Your task to perform on an android device: uninstall "Adobe Acrobat Reader: Edit PDF" Image 0: 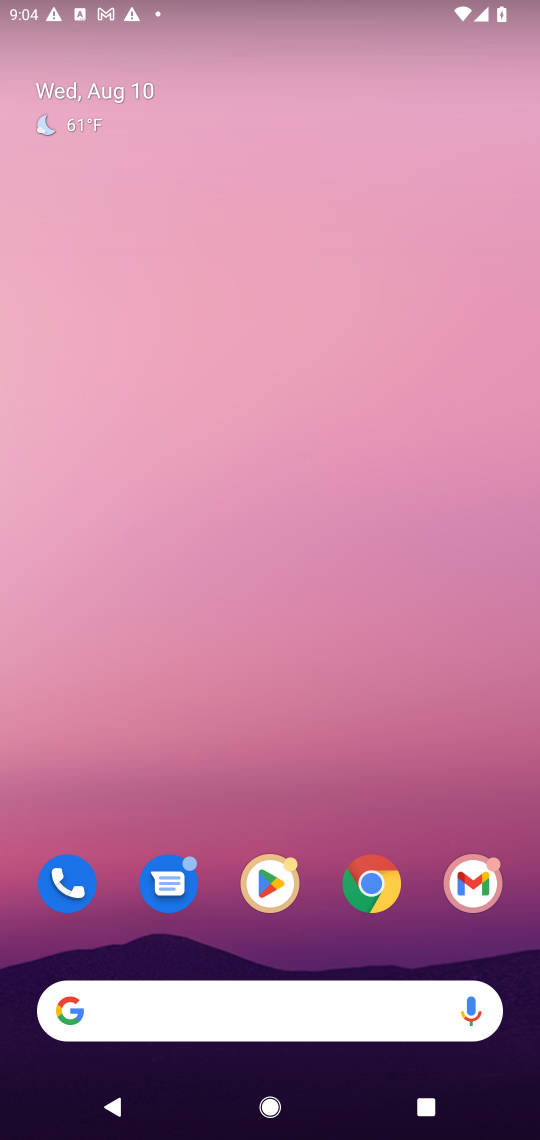
Step 0: click (276, 870)
Your task to perform on an android device: uninstall "Adobe Acrobat Reader: Edit PDF" Image 1: 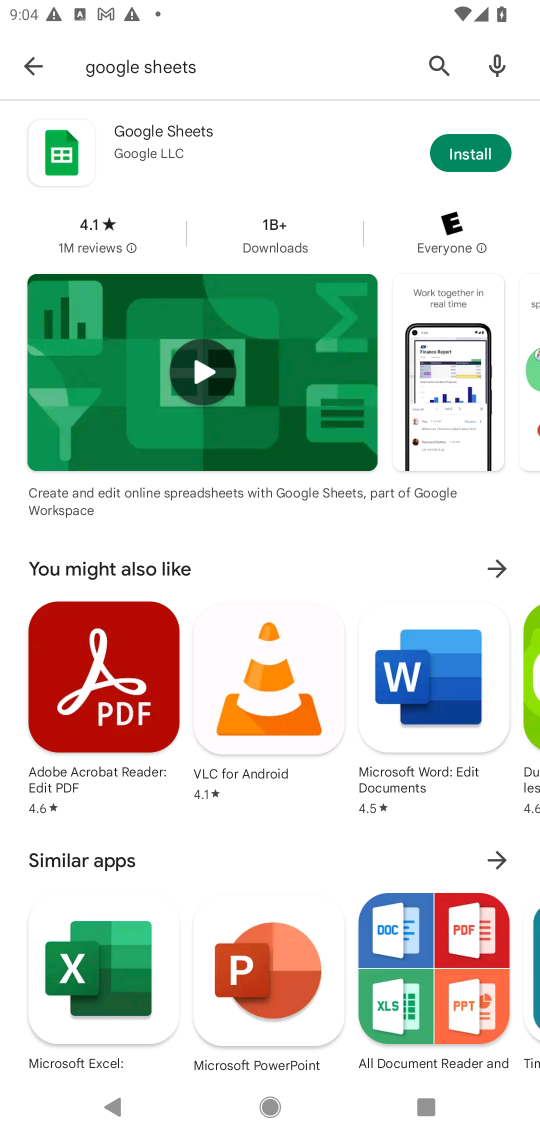
Step 1: click (470, 64)
Your task to perform on an android device: uninstall "Adobe Acrobat Reader: Edit PDF" Image 2: 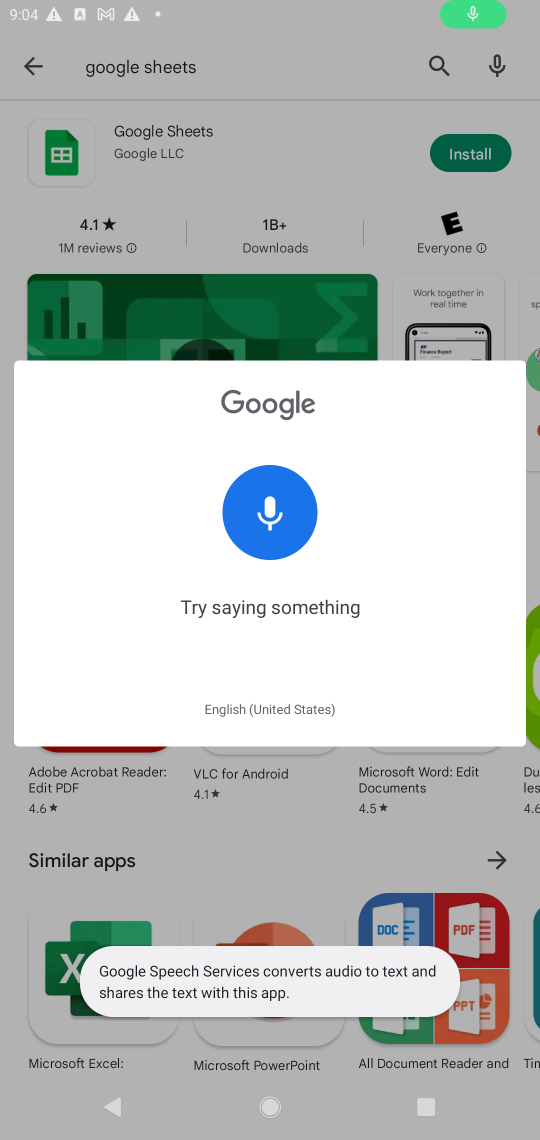
Step 2: click (428, 65)
Your task to perform on an android device: uninstall "Adobe Acrobat Reader: Edit PDF" Image 3: 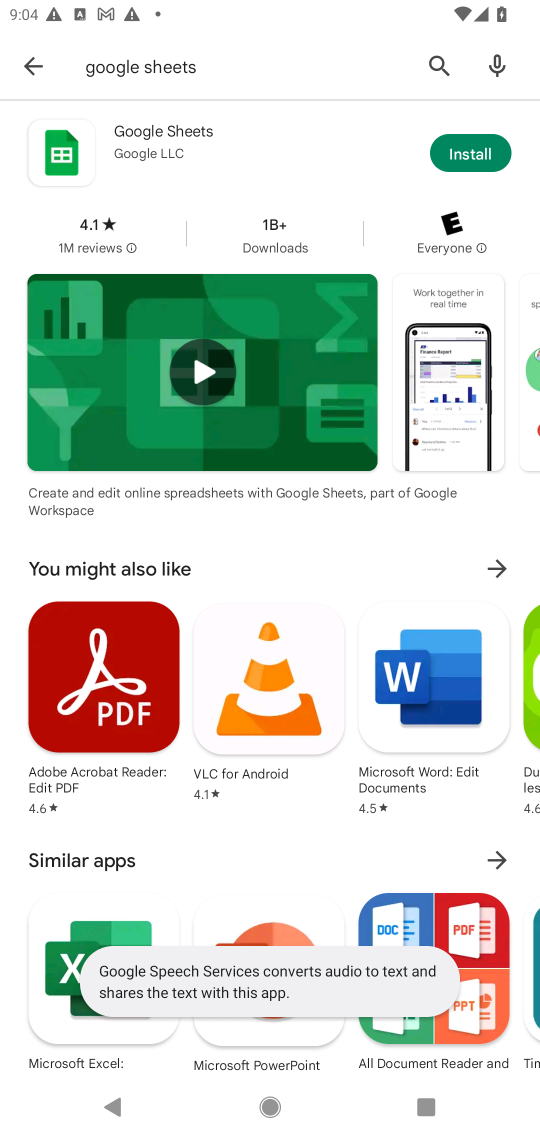
Step 3: click (444, 63)
Your task to perform on an android device: uninstall "Adobe Acrobat Reader: Edit PDF" Image 4: 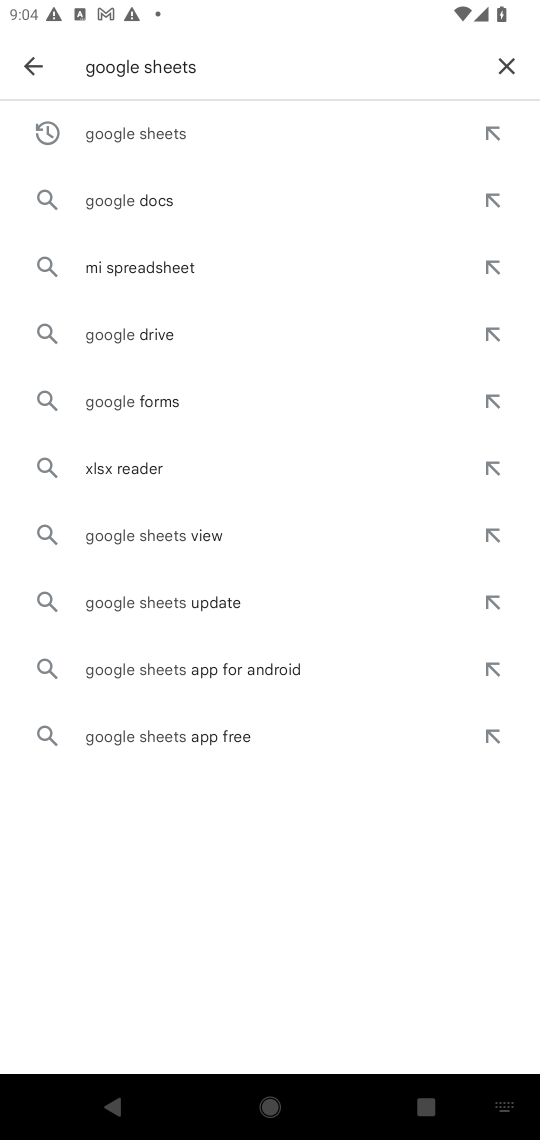
Step 4: click (511, 58)
Your task to perform on an android device: uninstall "Adobe Acrobat Reader: Edit PDF" Image 5: 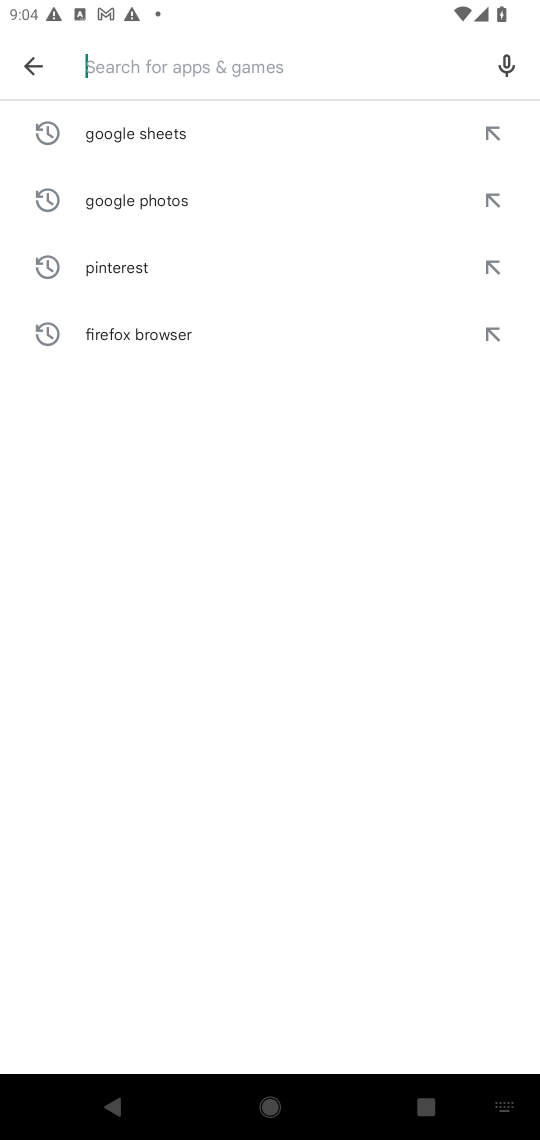
Step 5: type "Adobe Acrobat Reader: Edit PDF"
Your task to perform on an android device: uninstall "Adobe Acrobat Reader: Edit PDF" Image 6: 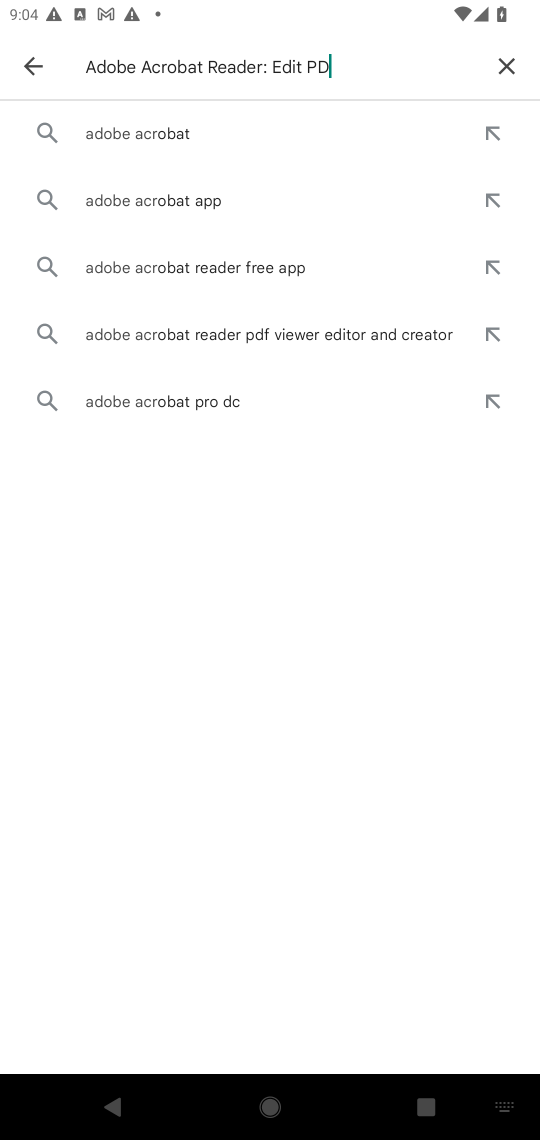
Step 6: type ""
Your task to perform on an android device: uninstall "Adobe Acrobat Reader: Edit PDF" Image 7: 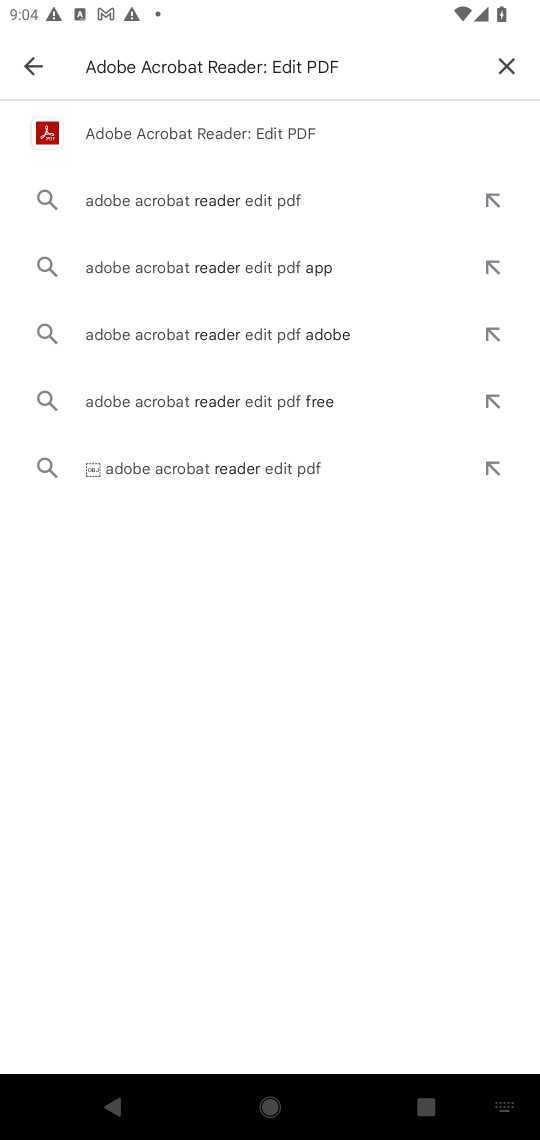
Step 7: click (215, 130)
Your task to perform on an android device: uninstall "Adobe Acrobat Reader: Edit PDF" Image 8: 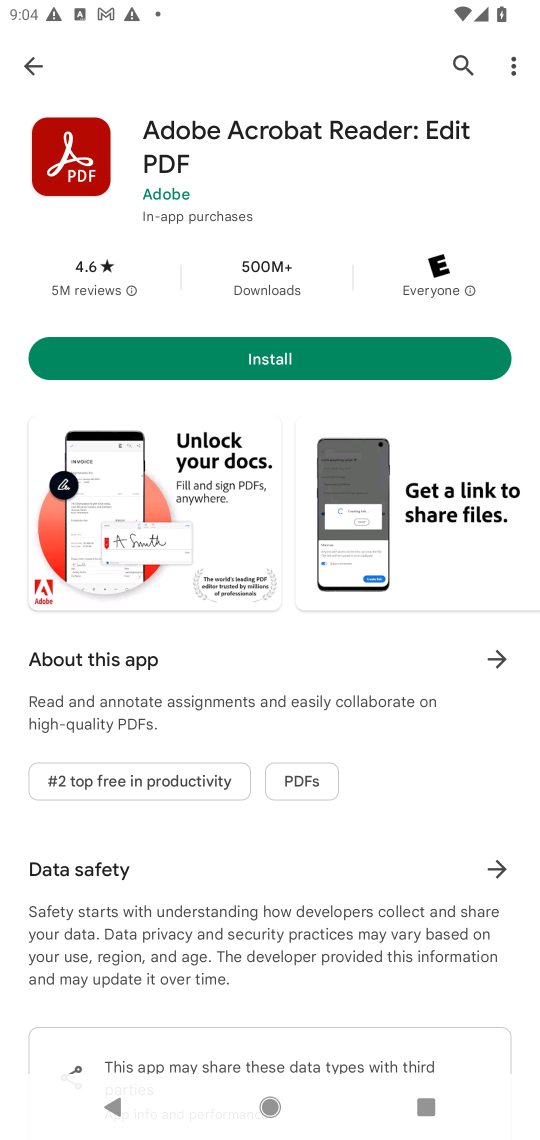
Step 8: task complete